Your task to perform on an android device: Open wifi settings Image 0: 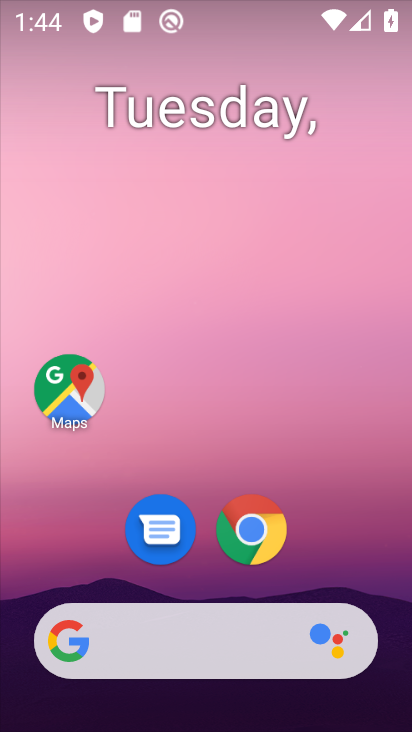
Step 0: click (234, 634)
Your task to perform on an android device: Open wifi settings Image 1: 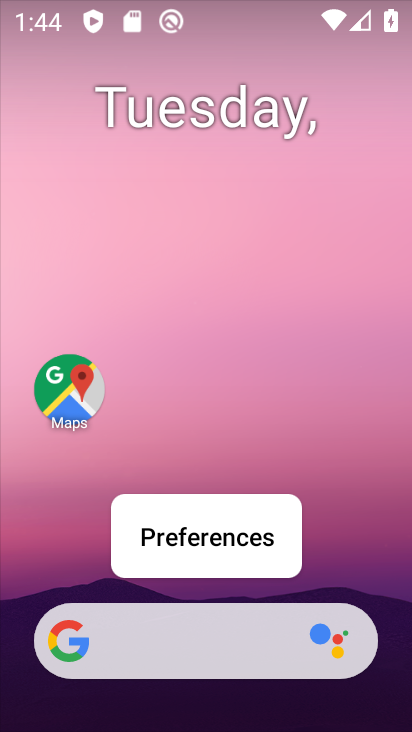
Step 1: drag from (392, 575) to (259, 102)
Your task to perform on an android device: Open wifi settings Image 2: 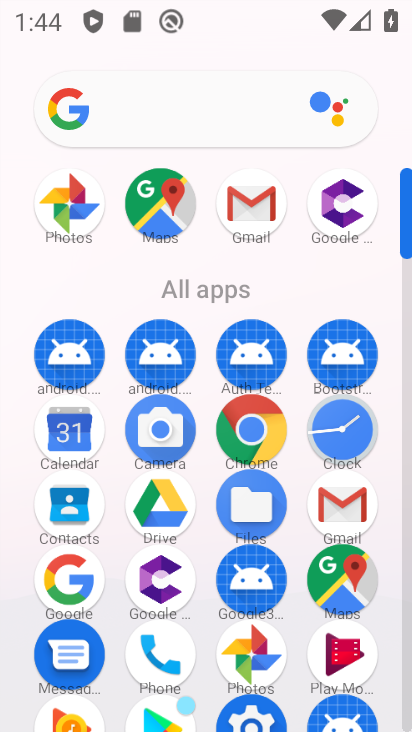
Step 2: click (409, 705)
Your task to perform on an android device: Open wifi settings Image 3: 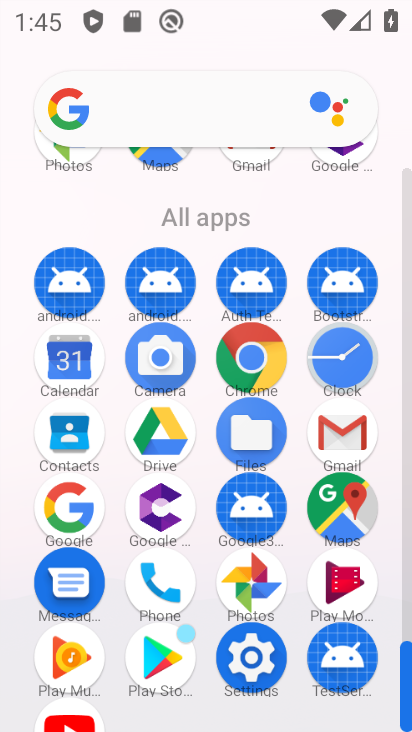
Step 3: click (269, 662)
Your task to perform on an android device: Open wifi settings Image 4: 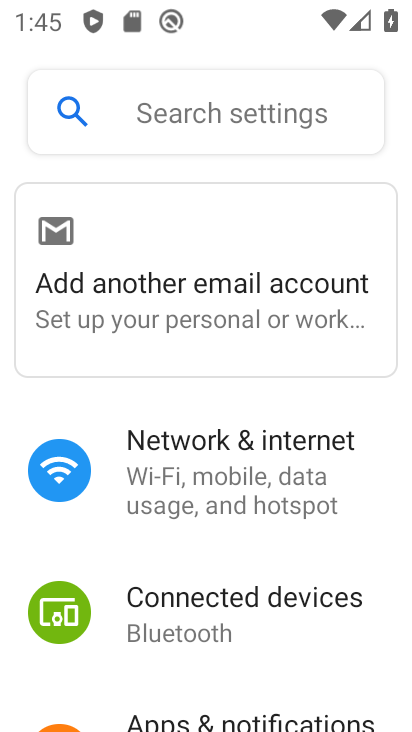
Step 4: click (256, 436)
Your task to perform on an android device: Open wifi settings Image 5: 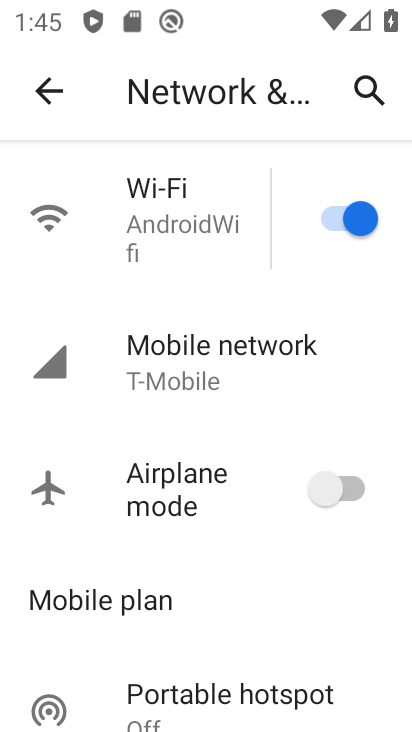
Step 5: click (182, 202)
Your task to perform on an android device: Open wifi settings Image 6: 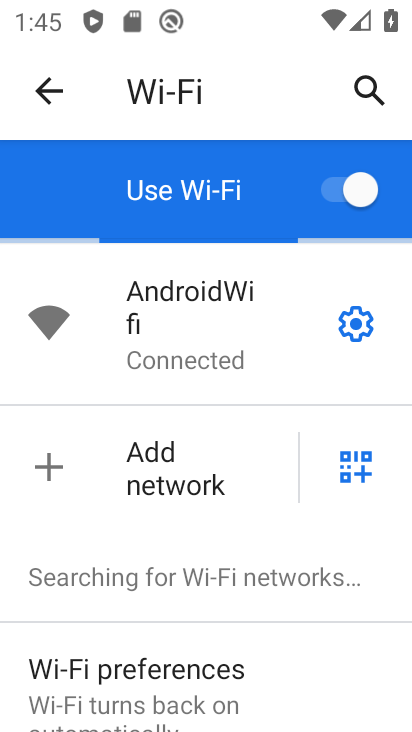
Step 6: task complete